Your task to perform on an android device: Search for vegetarian restaurants on Maps Image 0: 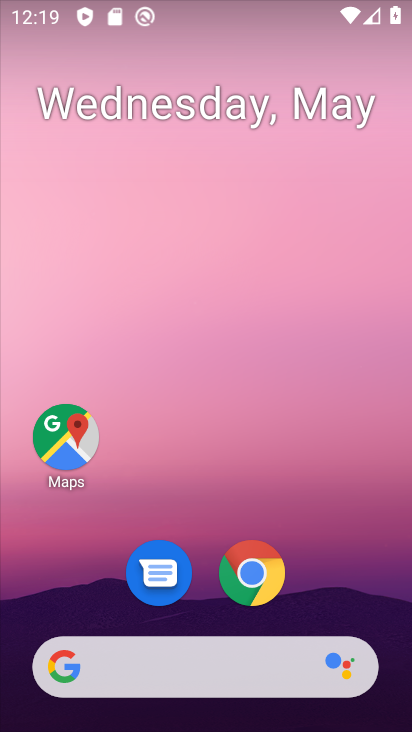
Step 0: click (72, 444)
Your task to perform on an android device: Search for vegetarian restaurants on Maps Image 1: 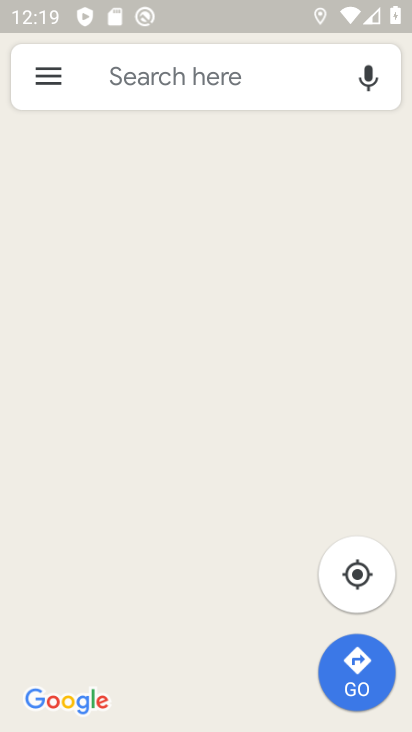
Step 1: click (197, 78)
Your task to perform on an android device: Search for vegetarian restaurants on Maps Image 2: 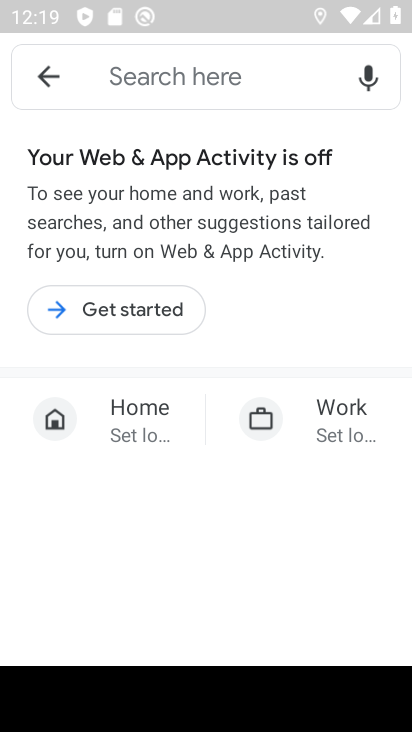
Step 2: type " vegetarian restaurants "
Your task to perform on an android device: Search for vegetarian restaurants on Maps Image 3: 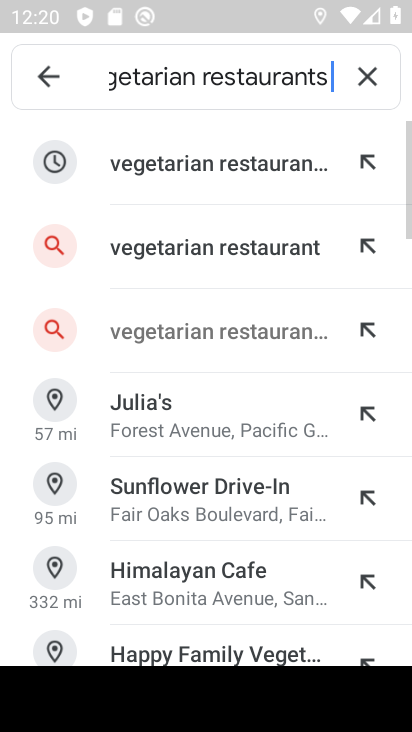
Step 3: click (96, 147)
Your task to perform on an android device: Search for vegetarian restaurants on Maps Image 4: 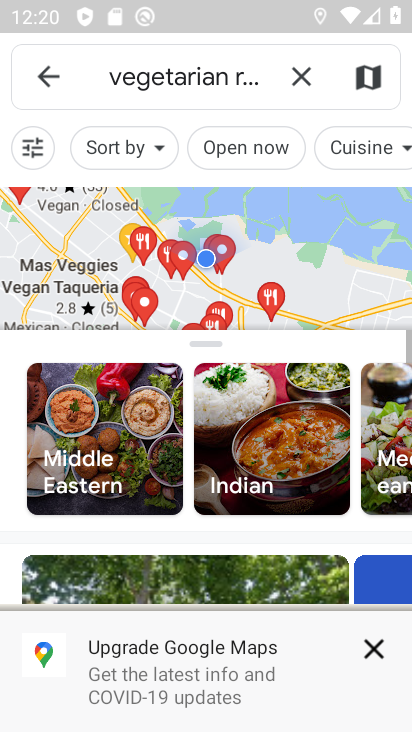
Step 4: task complete